Your task to perform on an android device: read, delete, or share a saved page in the chrome app Image 0: 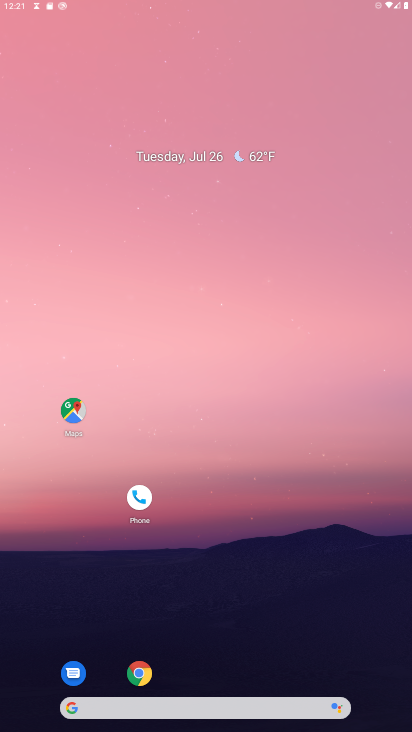
Step 0: press home button
Your task to perform on an android device: read, delete, or share a saved page in the chrome app Image 1: 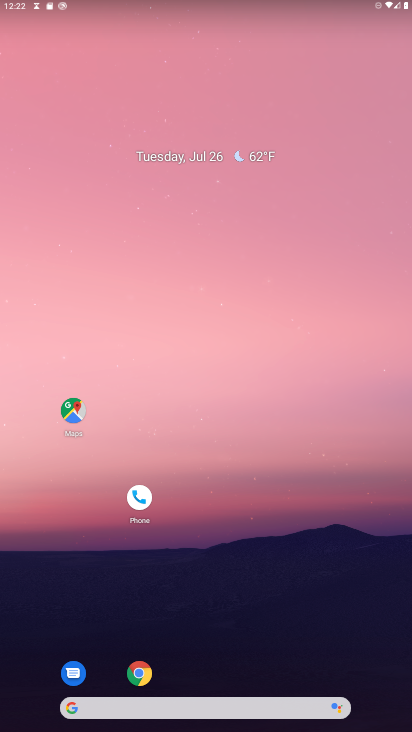
Step 1: drag from (228, 663) to (220, 169)
Your task to perform on an android device: read, delete, or share a saved page in the chrome app Image 2: 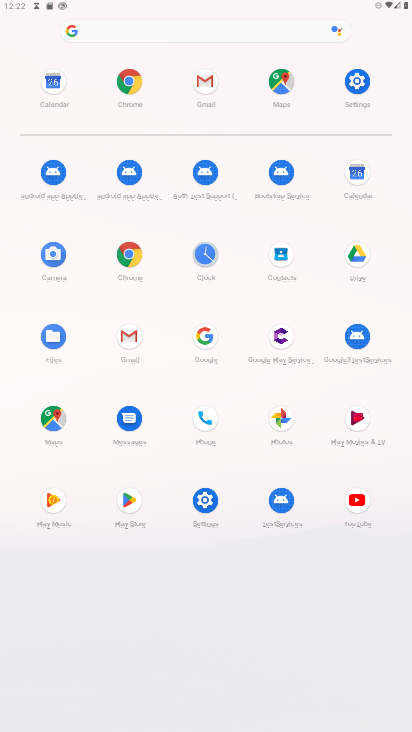
Step 2: click (137, 89)
Your task to perform on an android device: read, delete, or share a saved page in the chrome app Image 3: 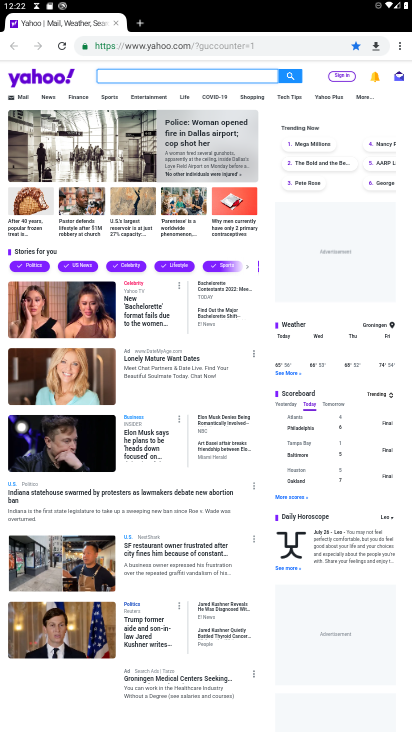
Step 3: drag from (399, 45) to (335, 161)
Your task to perform on an android device: read, delete, or share a saved page in the chrome app Image 4: 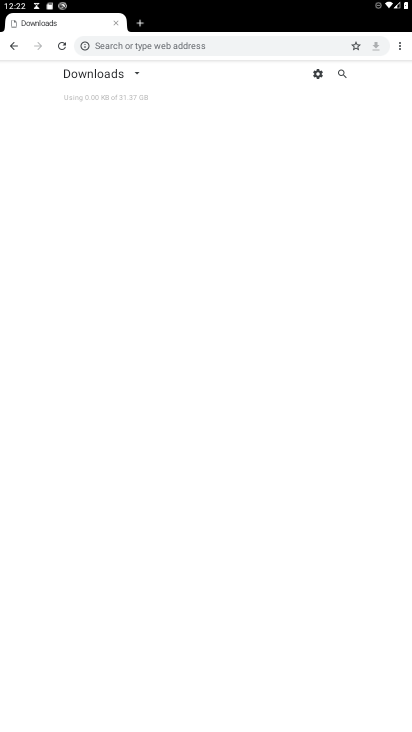
Step 4: click (124, 81)
Your task to perform on an android device: read, delete, or share a saved page in the chrome app Image 5: 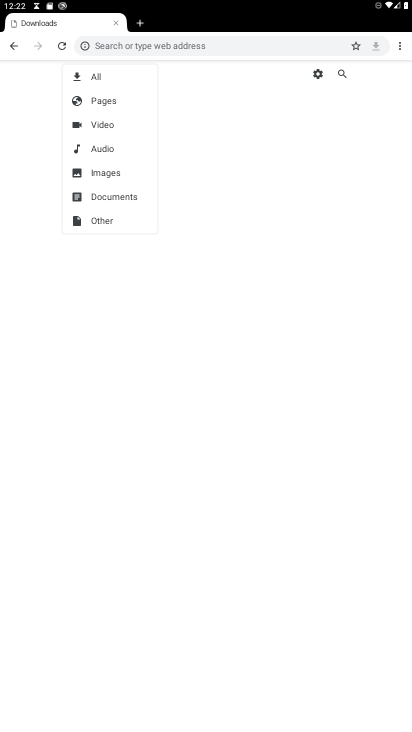
Step 5: click (105, 107)
Your task to perform on an android device: read, delete, or share a saved page in the chrome app Image 6: 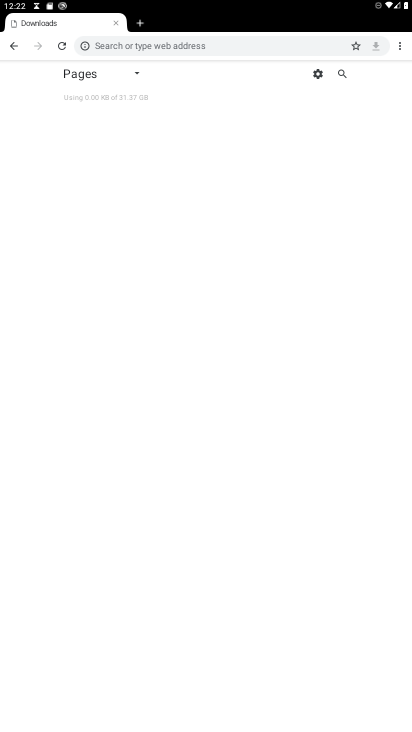
Step 6: task complete